Your task to perform on an android device: change notifications settings Image 0: 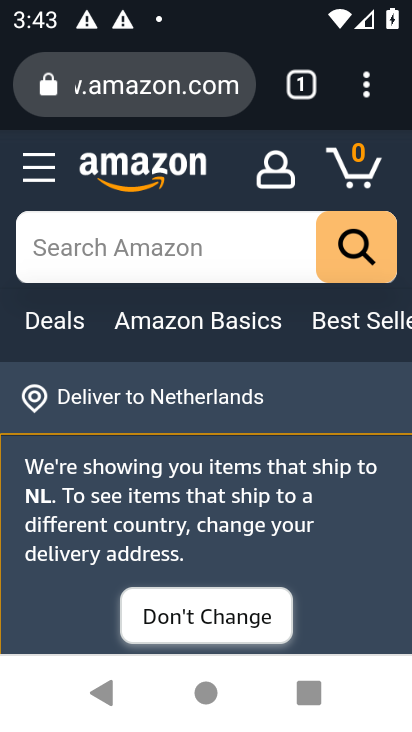
Step 0: press home button
Your task to perform on an android device: change notifications settings Image 1: 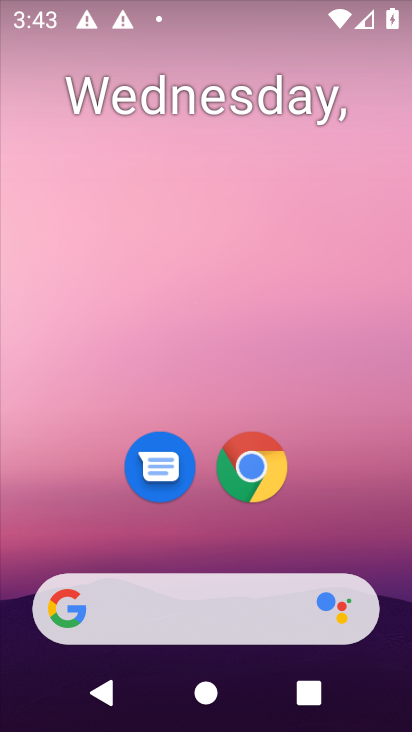
Step 1: drag from (14, 304) to (36, 212)
Your task to perform on an android device: change notifications settings Image 2: 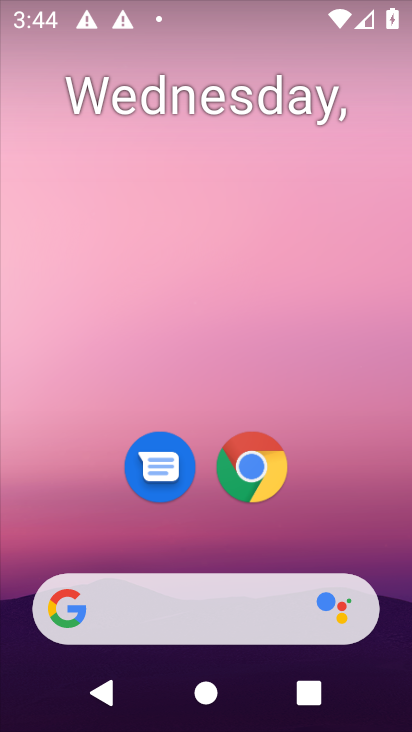
Step 2: drag from (42, 657) to (29, 199)
Your task to perform on an android device: change notifications settings Image 3: 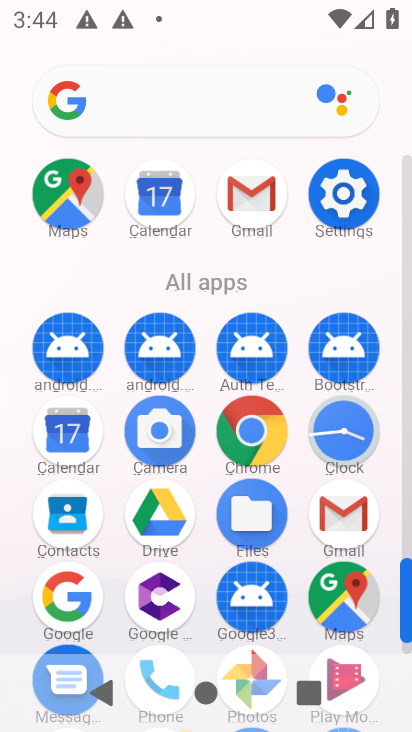
Step 3: click (339, 184)
Your task to perform on an android device: change notifications settings Image 4: 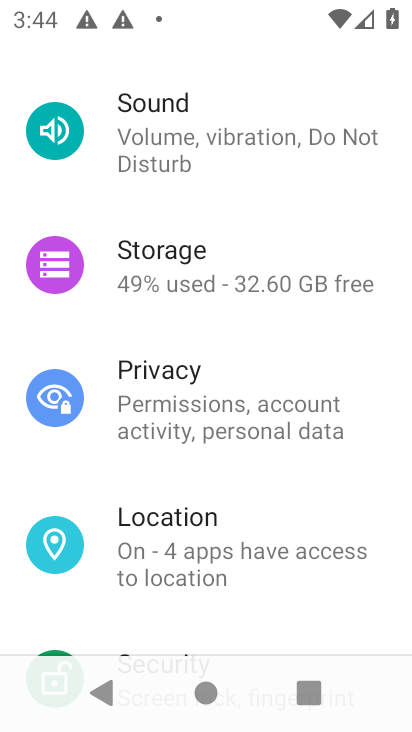
Step 4: drag from (358, 81) to (272, 677)
Your task to perform on an android device: change notifications settings Image 5: 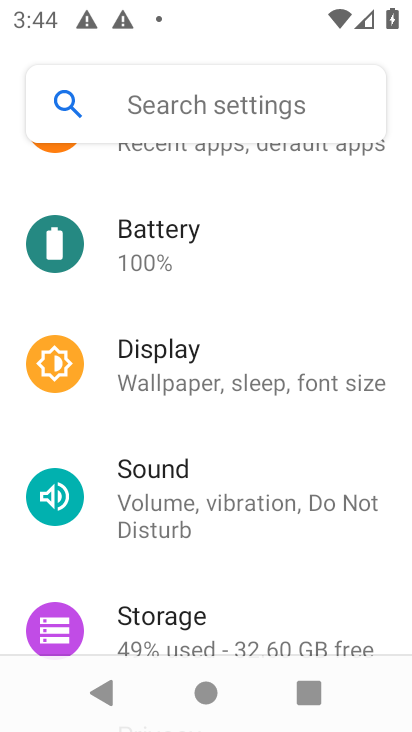
Step 5: drag from (258, 517) to (236, 708)
Your task to perform on an android device: change notifications settings Image 6: 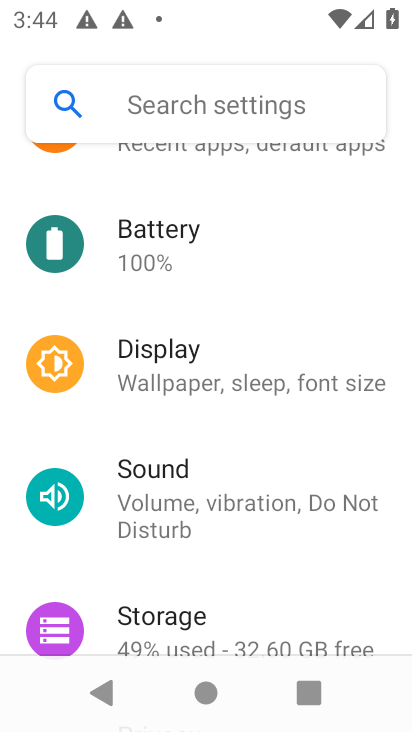
Step 6: drag from (260, 204) to (275, 544)
Your task to perform on an android device: change notifications settings Image 7: 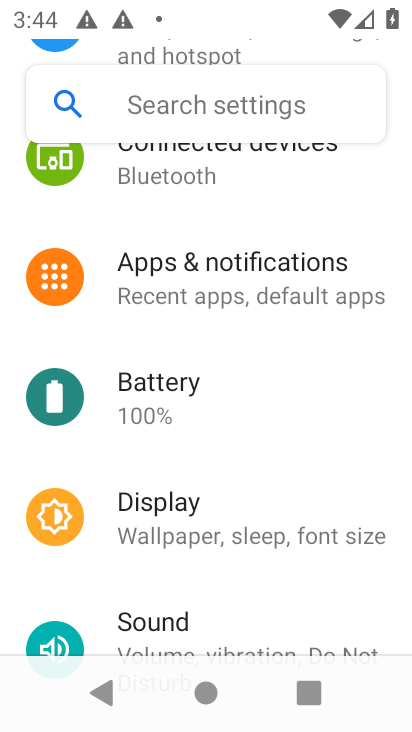
Step 7: click (222, 272)
Your task to perform on an android device: change notifications settings Image 8: 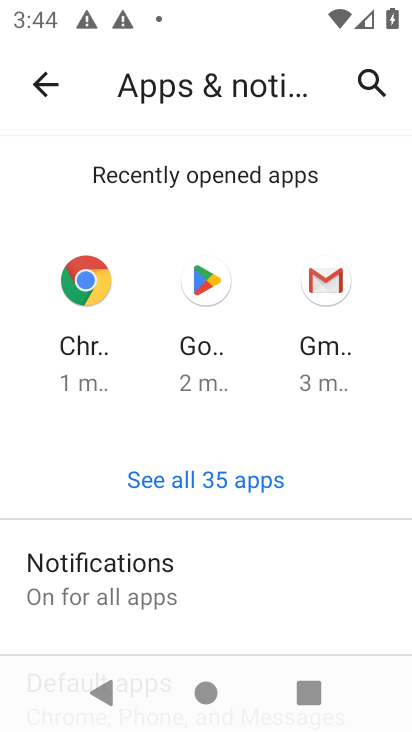
Step 8: click (138, 573)
Your task to perform on an android device: change notifications settings Image 9: 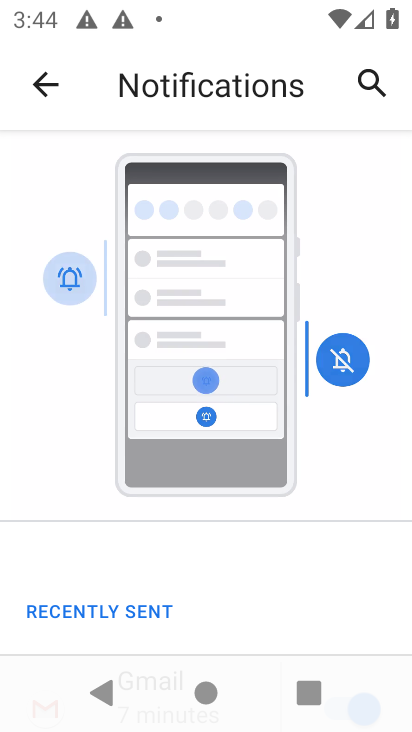
Step 9: task complete